Your task to perform on an android device: Show me the alarms in the clock app Image 0: 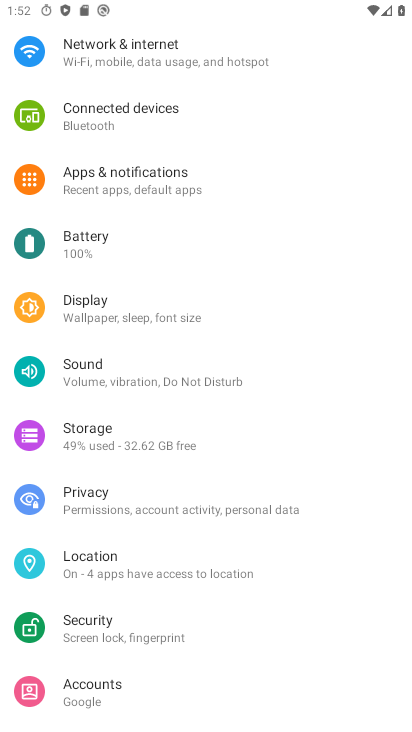
Step 0: press home button
Your task to perform on an android device: Show me the alarms in the clock app Image 1: 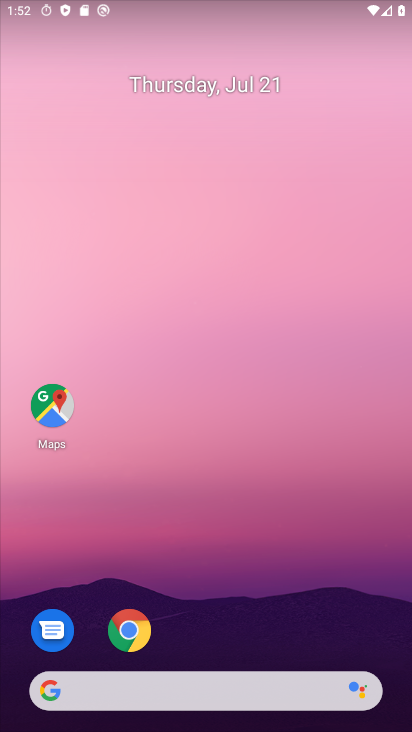
Step 1: drag from (234, 629) to (287, 110)
Your task to perform on an android device: Show me the alarms in the clock app Image 2: 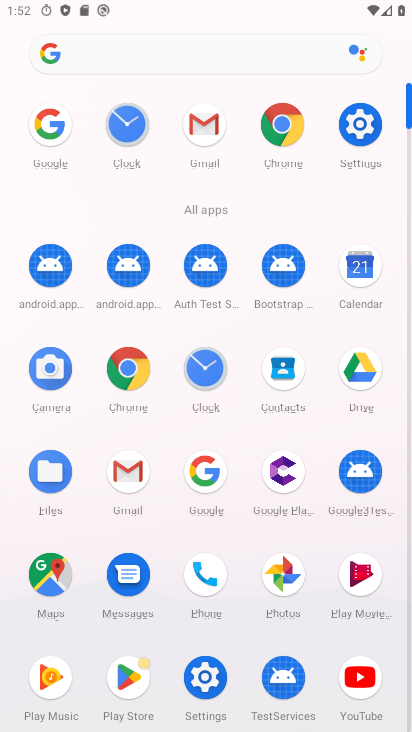
Step 2: click (201, 371)
Your task to perform on an android device: Show me the alarms in the clock app Image 3: 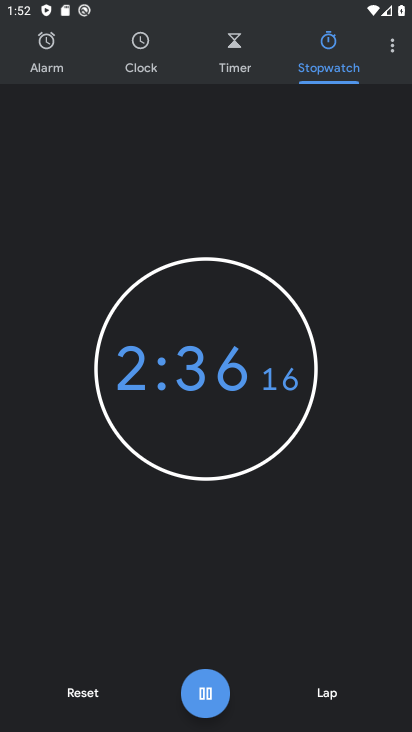
Step 3: click (46, 64)
Your task to perform on an android device: Show me the alarms in the clock app Image 4: 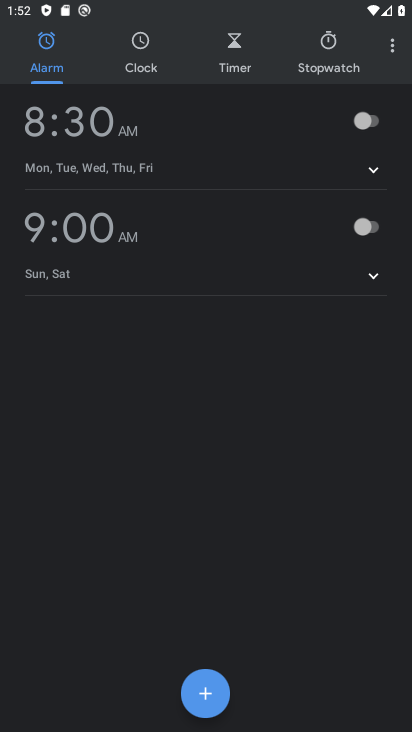
Step 4: task complete